Your task to perform on an android device: Open Chrome and go to the settings page Image 0: 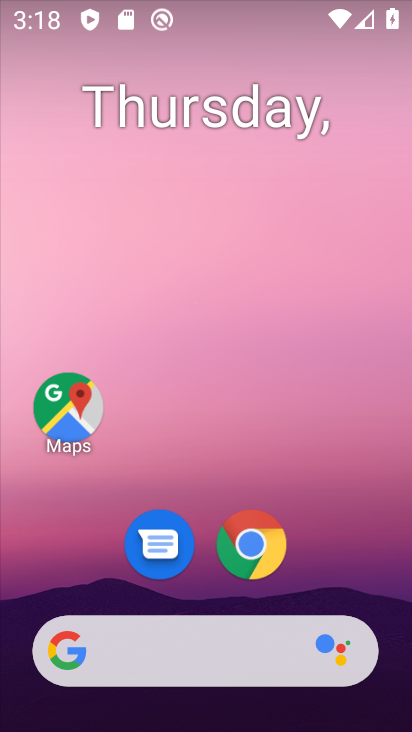
Step 0: drag from (322, 562) to (351, 4)
Your task to perform on an android device: Open Chrome and go to the settings page Image 1: 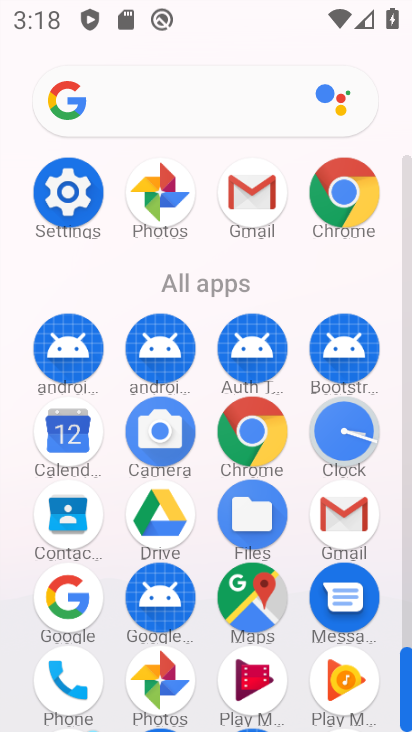
Step 1: click (243, 439)
Your task to perform on an android device: Open Chrome and go to the settings page Image 2: 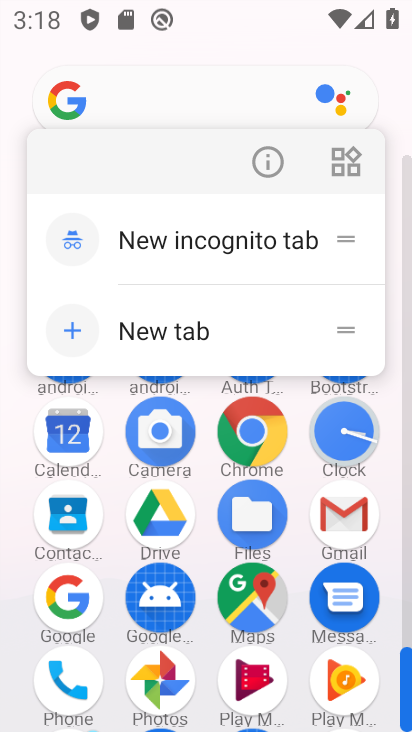
Step 2: click (238, 425)
Your task to perform on an android device: Open Chrome and go to the settings page Image 3: 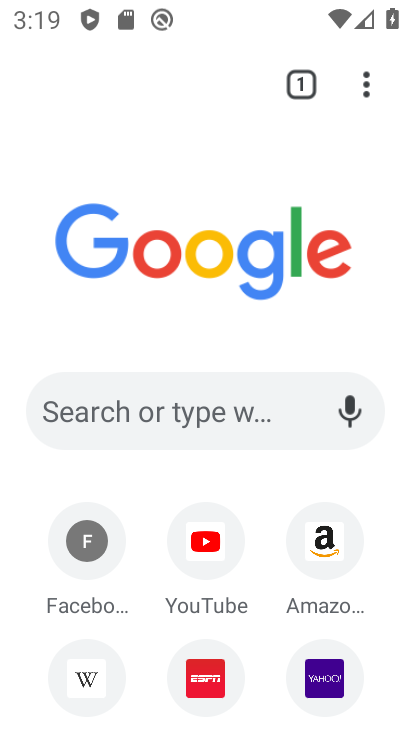
Step 3: click (368, 87)
Your task to perform on an android device: Open Chrome and go to the settings page Image 4: 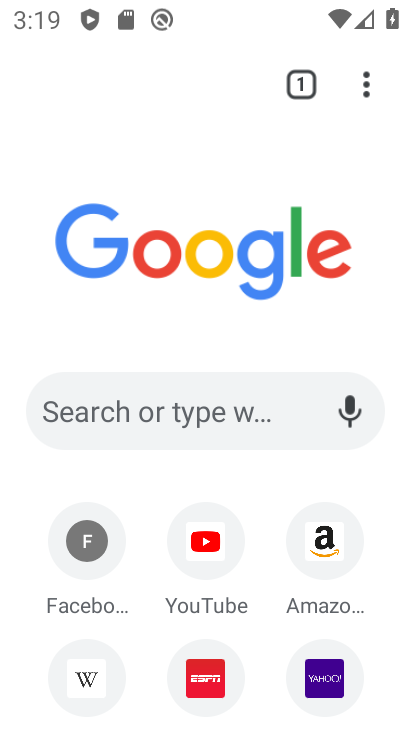
Step 4: click (363, 74)
Your task to perform on an android device: Open Chrome and go to the settings page Image 5: 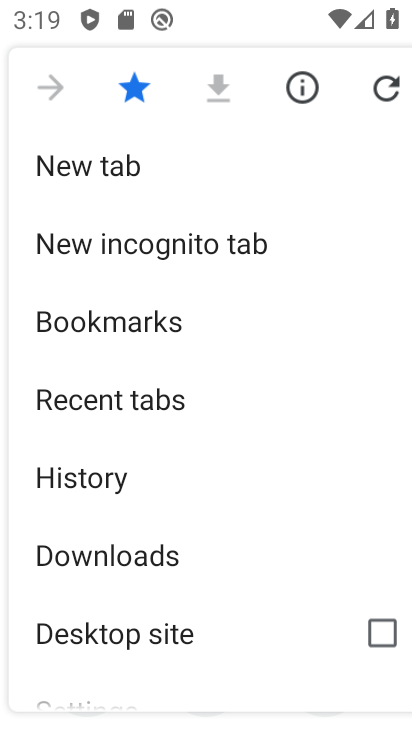
Step 5: drag from (244, 549) to (261, 163)
Your task to perform on an android device: Open Chrome and go to the settings page Image 6: 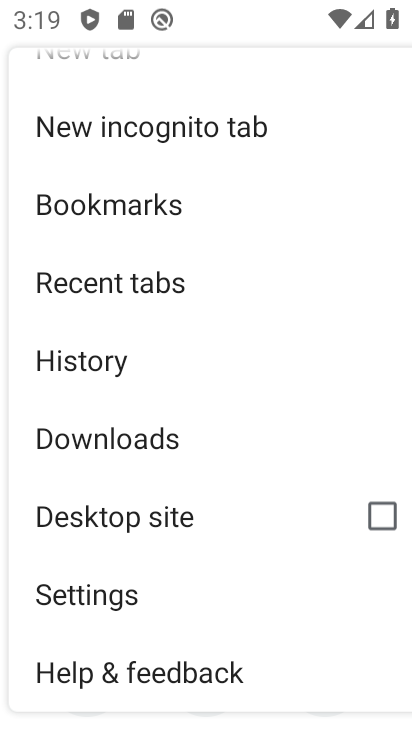
Step 6: click (139, 601)
Your task to perform on an android device: Open Chrome and go to the settings page Image 7: 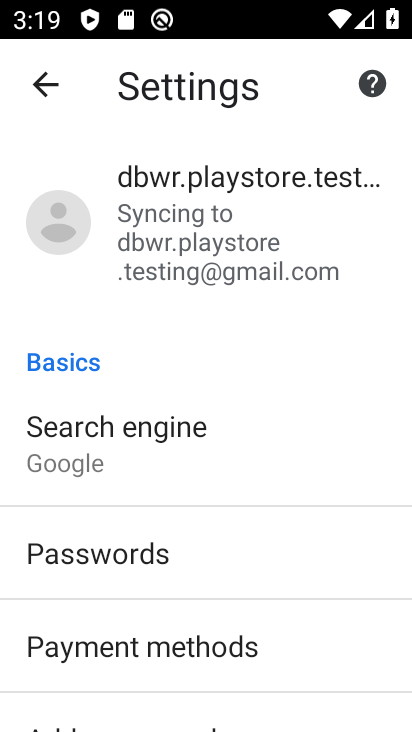
Step 7: task complete